Your task to perform on an android device: open app "YouTube Kids" (install if not already installed), go to login, and select forgot password Image 0: 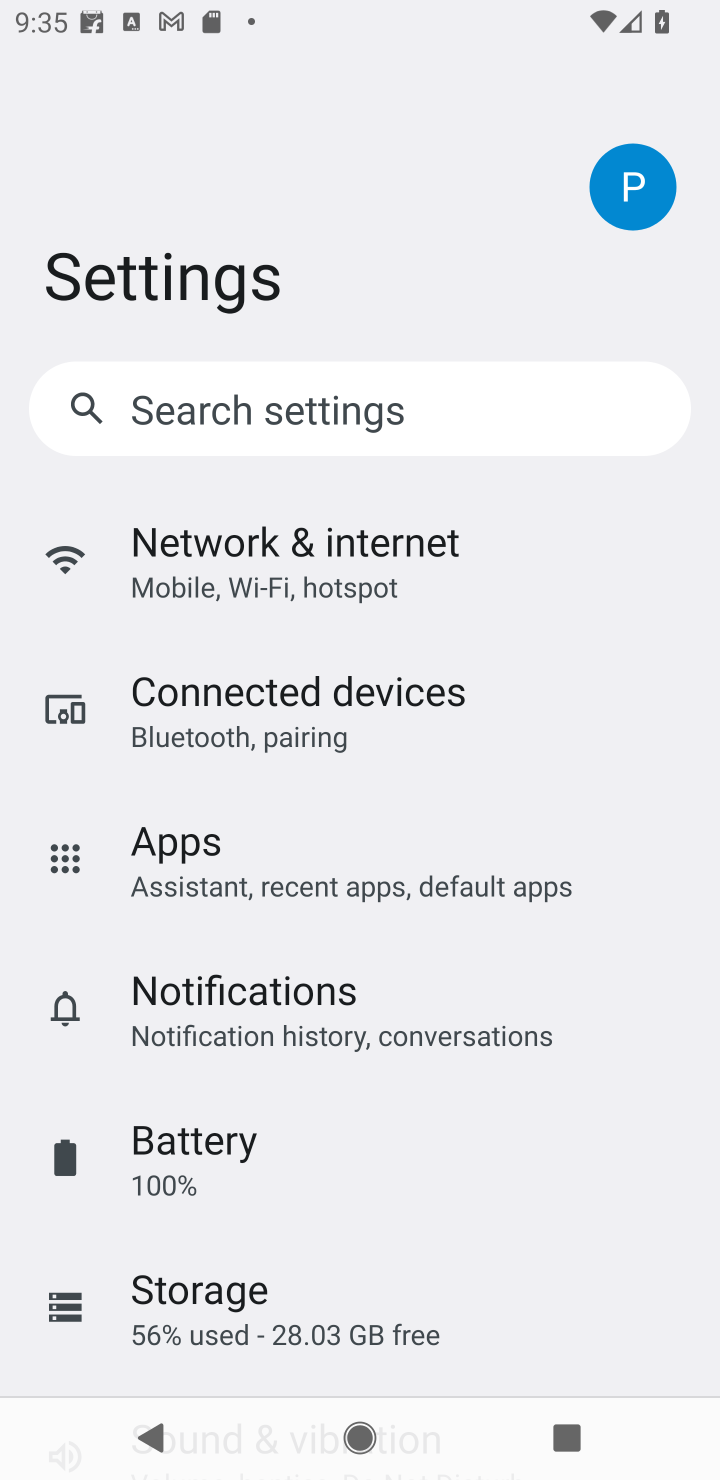
Step 0: press home button
Your task to perform on an android device: open app "YouTube Kids" (install if not already installed), go to login, and select forgot password Image 1: 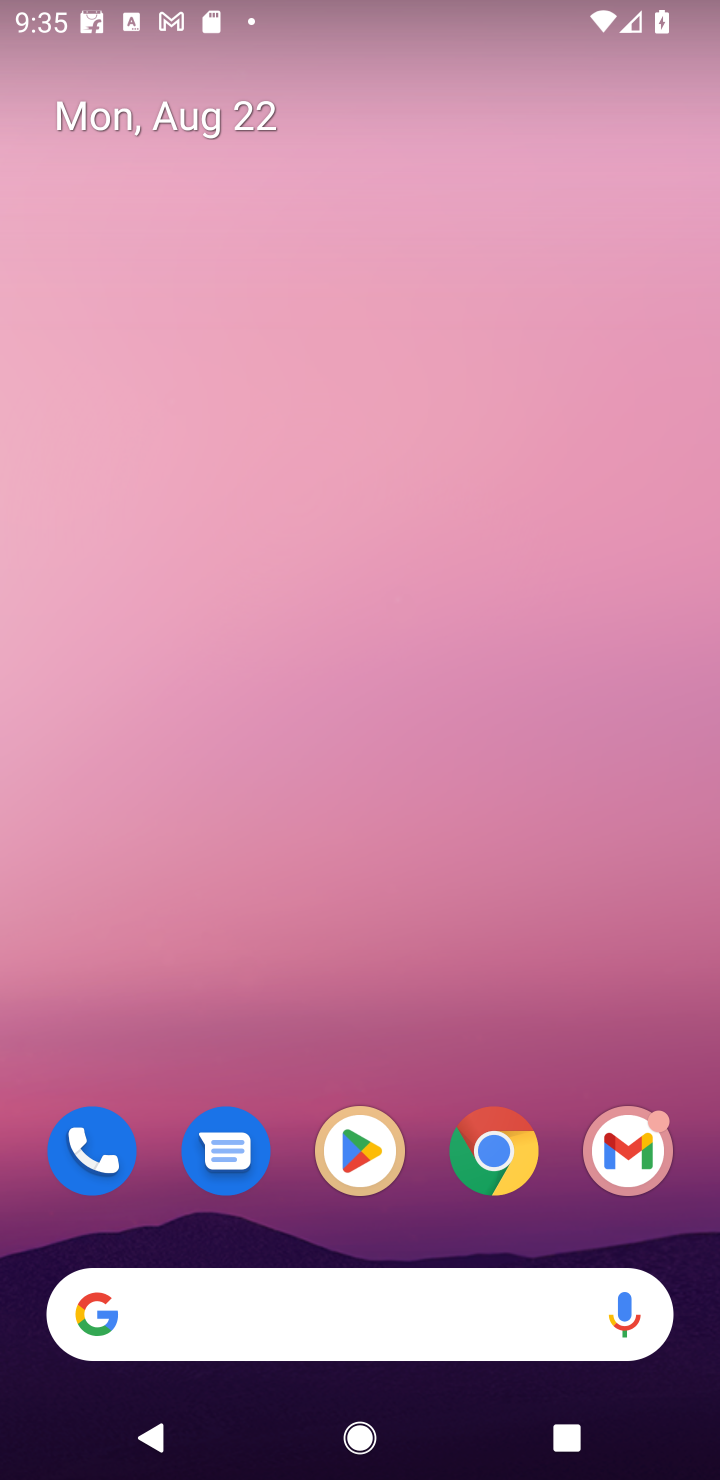
Step 1: click (349, 1147)
Your task to perform on an android device: open app "YouTube Kids" (install if not already installed), go to login, and select forgot password Image 2: 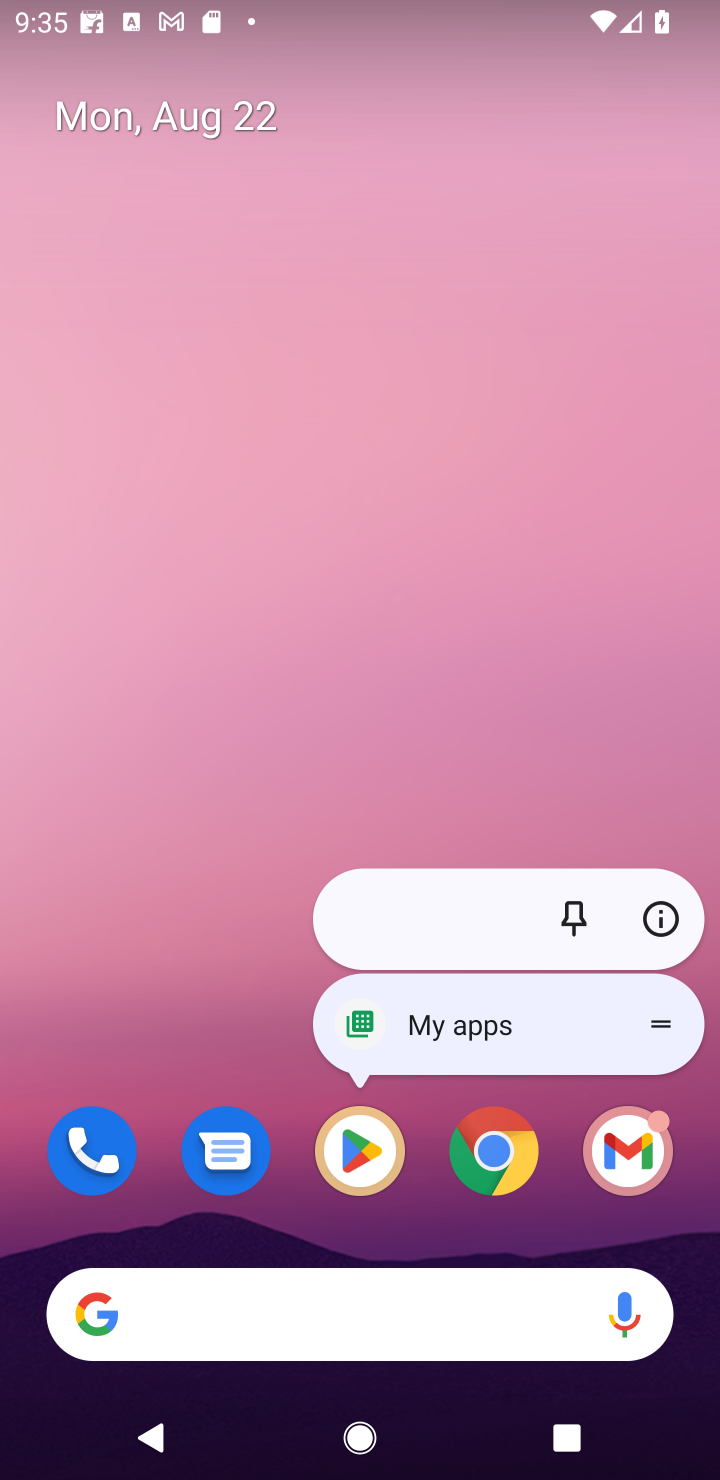
Step 2: click (349, 1145)
Your task to perform on an android device: open app "YouTube Kids" (install if not already installed), go to login, and select forgot password Image 3: 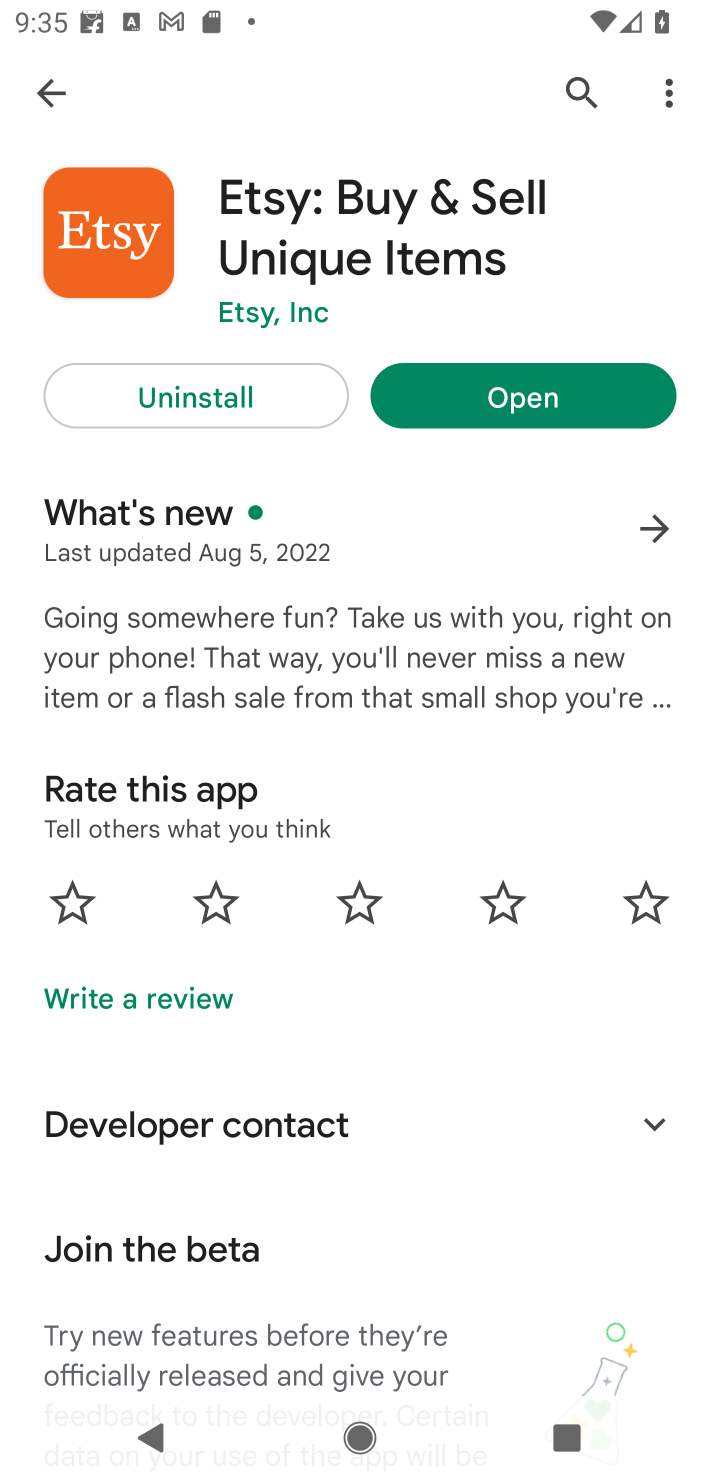
Step 3: click (588, 84)
Your task to perform on an android device: open app "YouTube Kids" (install if not already installed), go to login, and select forgot password Image 4: 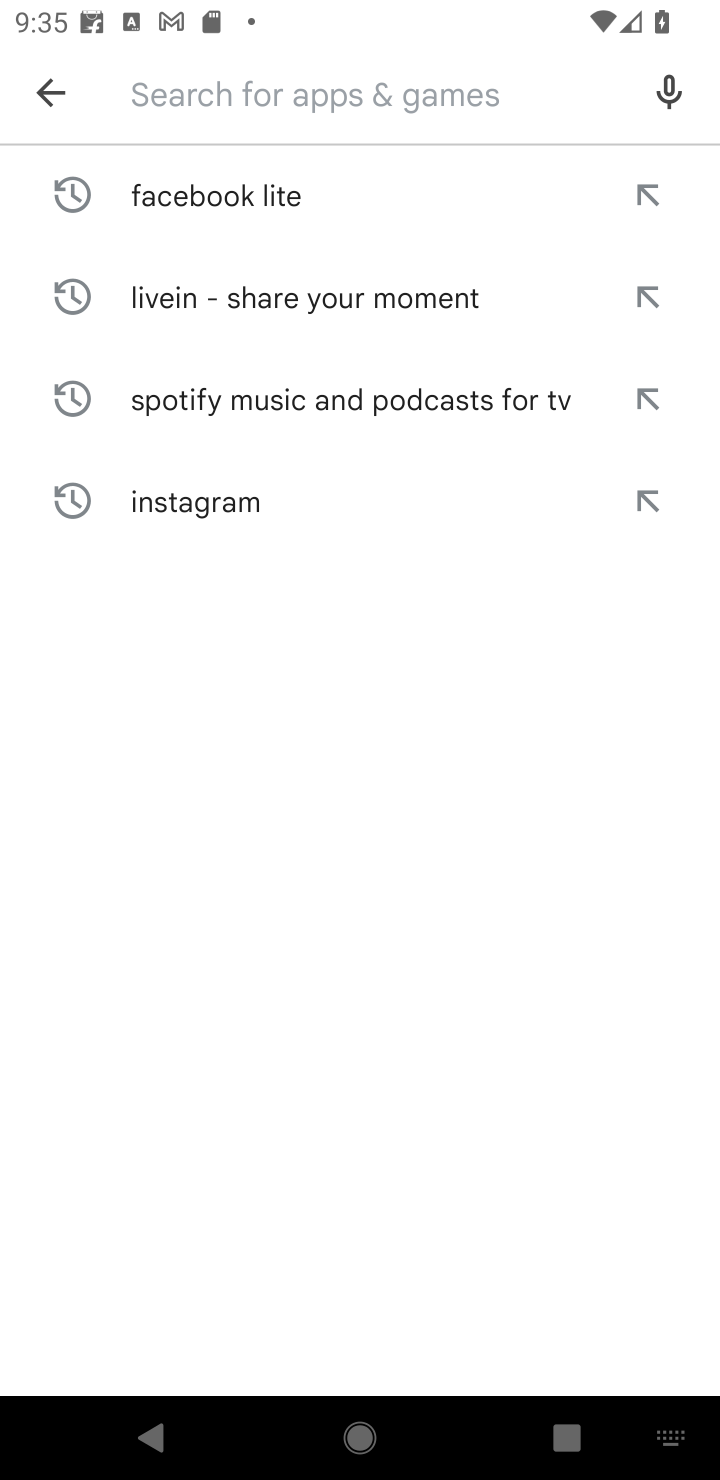
Step 4: type "YouTube Kids"
Your task to perform on an android device: open app "YouTube Kids" (install if not already installed), go to login, and select forgot password Image 5: 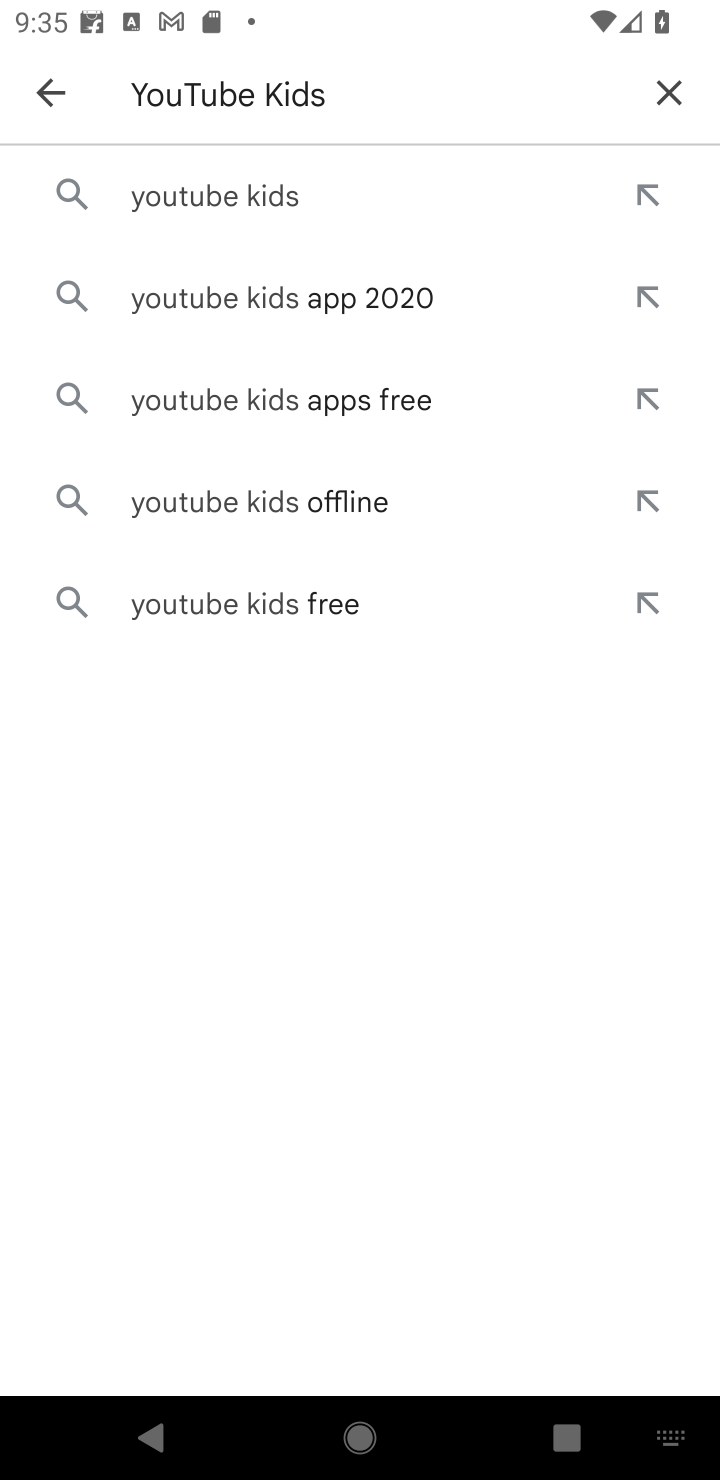
Step 5: click (175, 204)
Your task to perform on an android device: open app "YouTube Kids" (install if not already installed), go to login, and select forgot password Image 6: 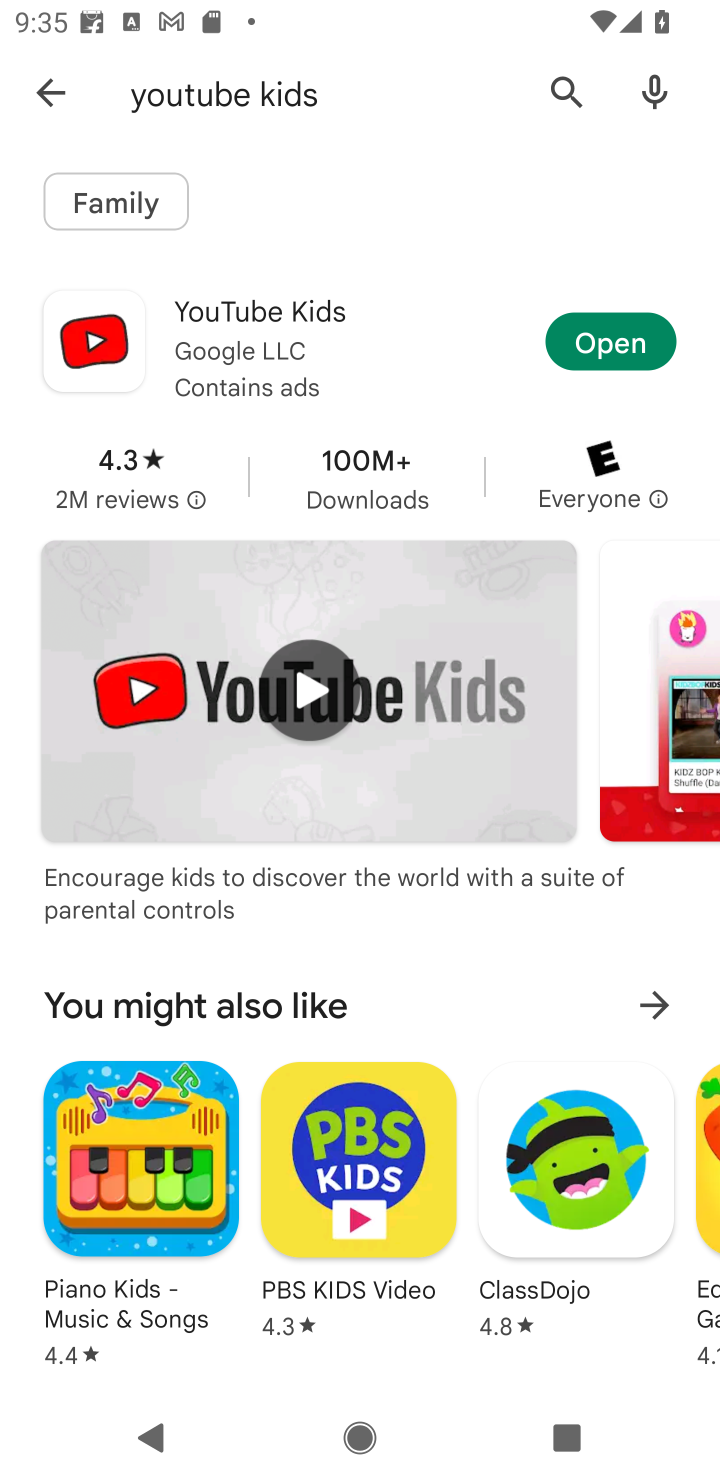
Step 6: click (612, 343)
Your task to perform on an android device: open app "YouTube Kids" (install if not already installed), go to login, and select forgot password Image 7: 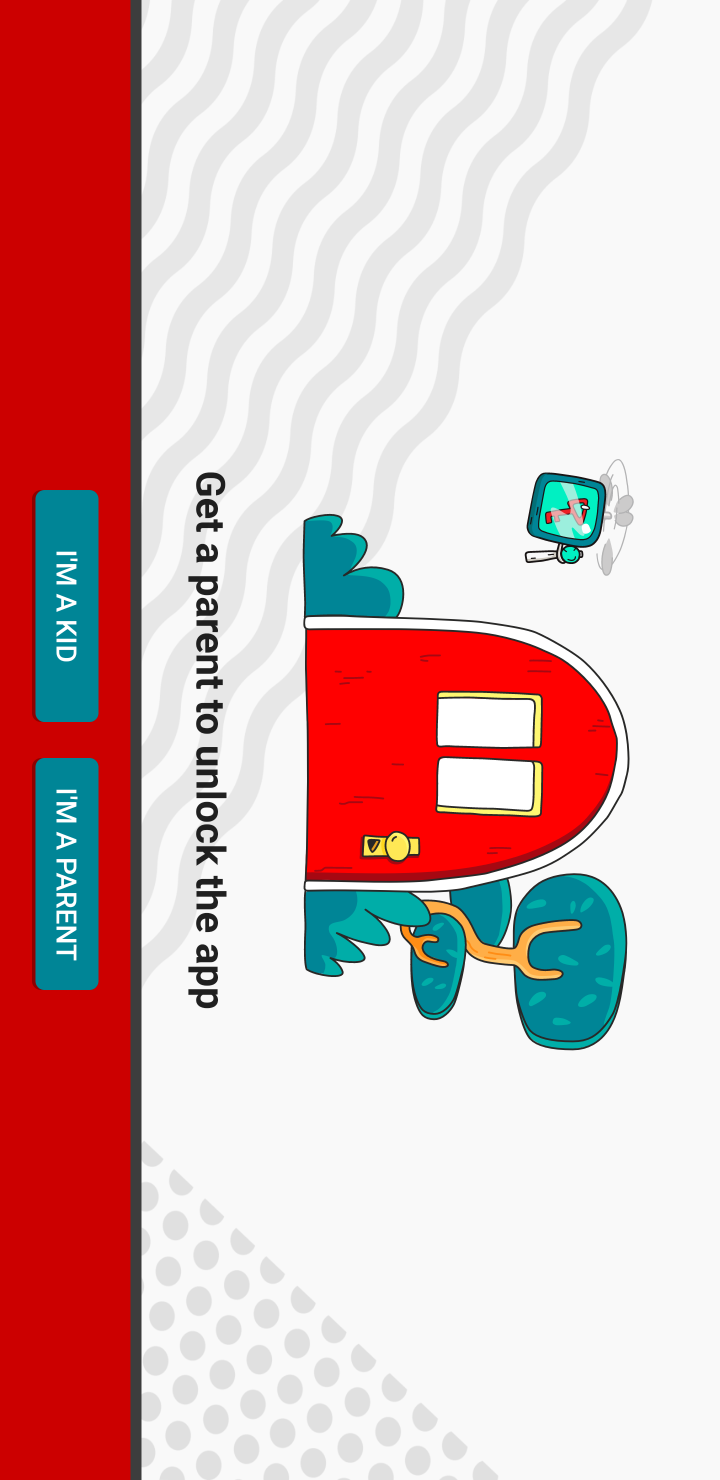
Step 7: task complete